Your task to perform on an android device: change the clock display to analog Image 0: 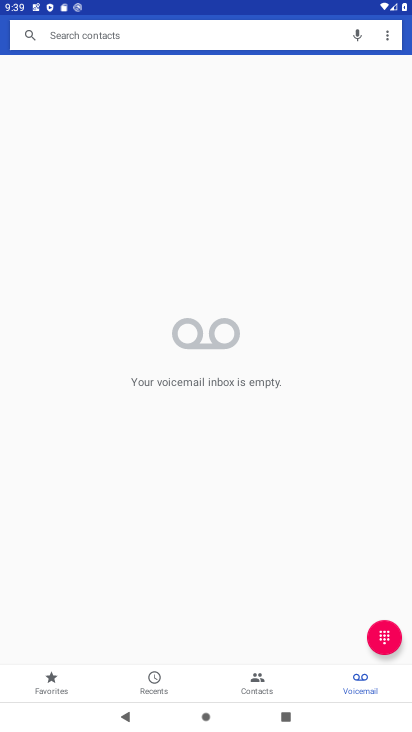
Step 0: press home button
Your task to perform on an android device: change the clock display to analog Image 1: 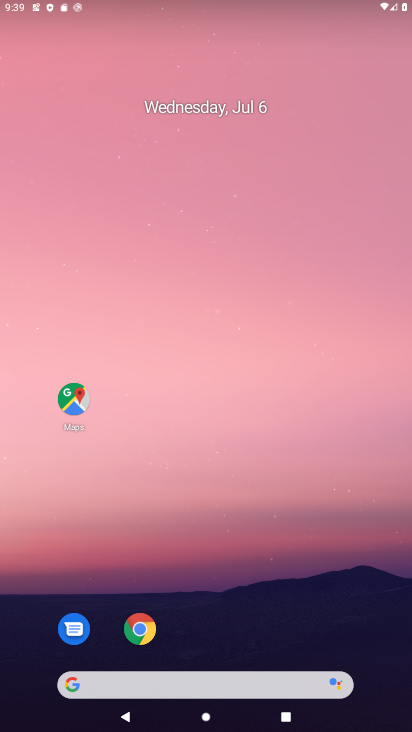
Step 1: drag from (254, 618) to (276, 122)
Your task to perform on an android device: change the clock display to analog Image 2: 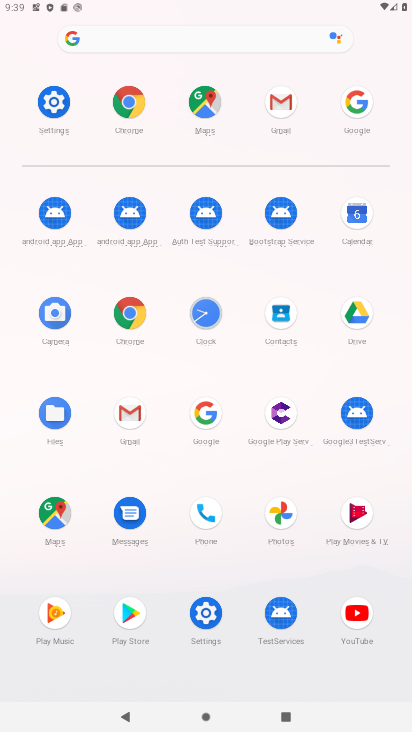
Step 2: click (203, 313)
Your task to perform on an android device: change the clock display to analog Image 3: 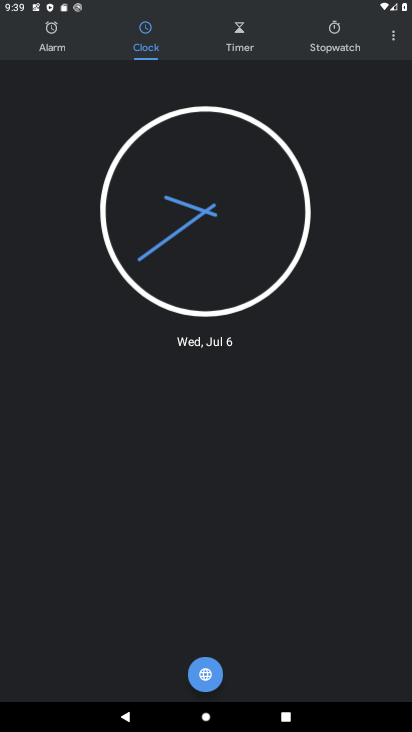
Step 3: click (388, 40)
Your task to perform on an android device: change the clock display to analog Image 4: 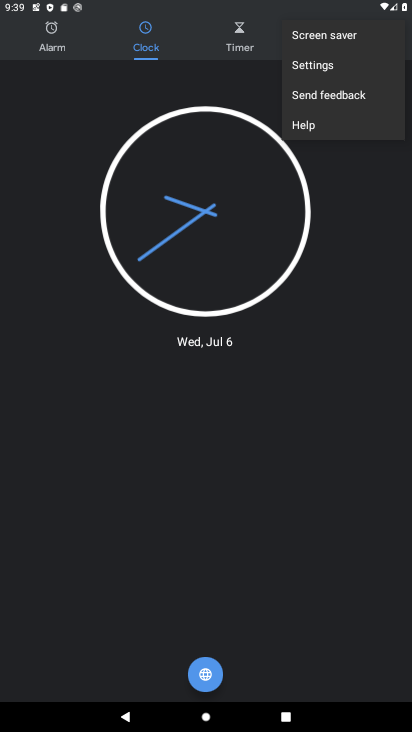
Step 4: click (331, 63)
Your task to perform on an android device: change the clock display to analog Image 5: 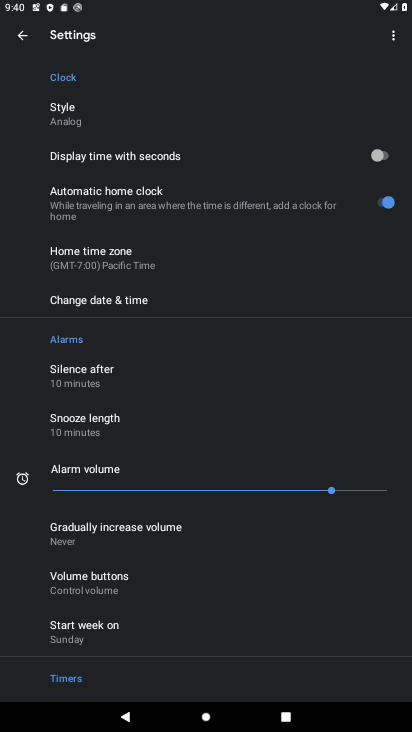
Step 5: click (106, 115)
Your task to perform on an android device: change the clock display to analog Image 6: 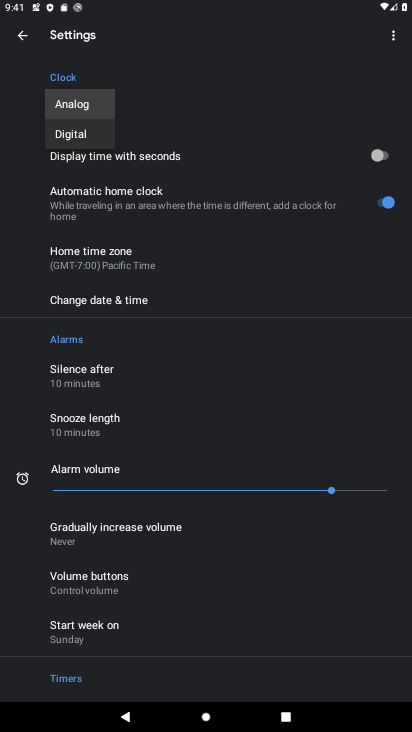
Step 6: task complete